Your task to perform on an android device: turn off smart reply in the gmail app Image 0: 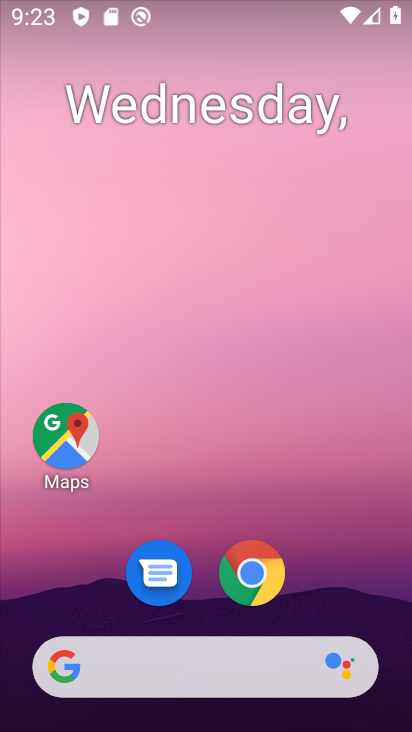
Step 0: drag from (298, 511) to (291, 304)
Your task to perform on an android device: turn off smart reply in the gmail app Image 1: 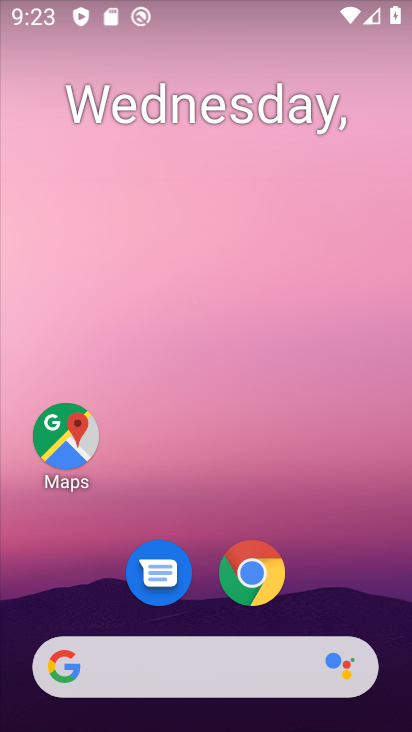
Step 1: drag from (310, 529) to (311, 244)
Your task to perform on an android device: turn off smart reply in the gmail app Image 2: 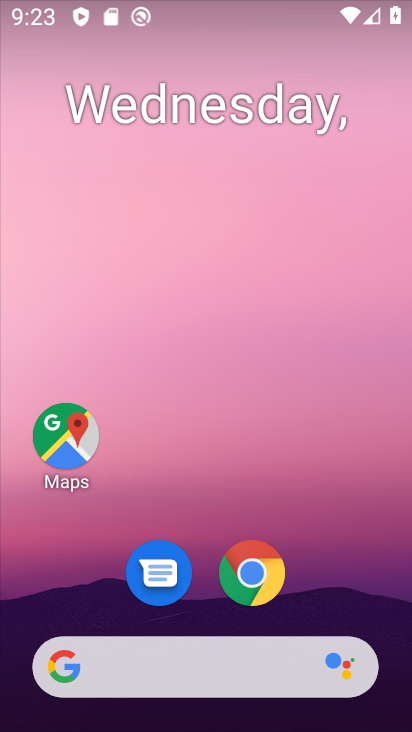
Step 2: drag from (305, 568) to (304, 195)
Your task to perform on an android device: turn off smart reply in the gmail app Image 3: 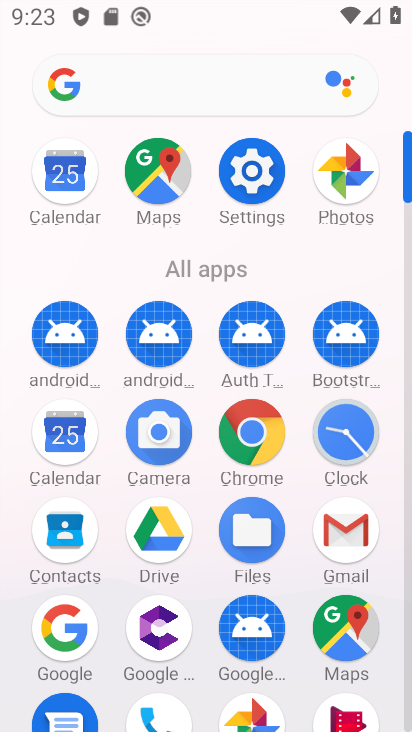
Step 3: click (354, 531)
Your task to perform on an android device: turn off smart reply in the gmail app Image 4: 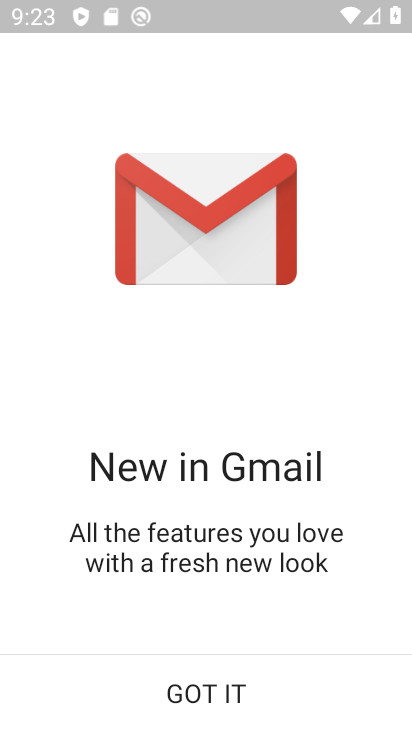
Step 4: click (237, 689)
Your task to perform on an android device: turn off smart reply in the gmail app Image 5: 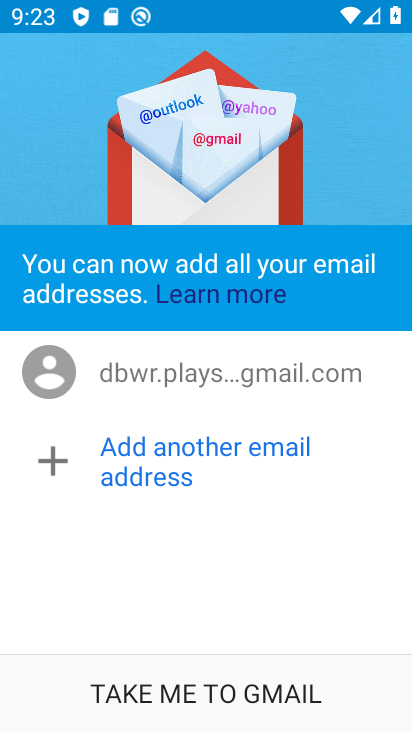
Step 5: click (242, 676)
Your task to perform on an android device: turn off smart reply in the gmail app Image 6: 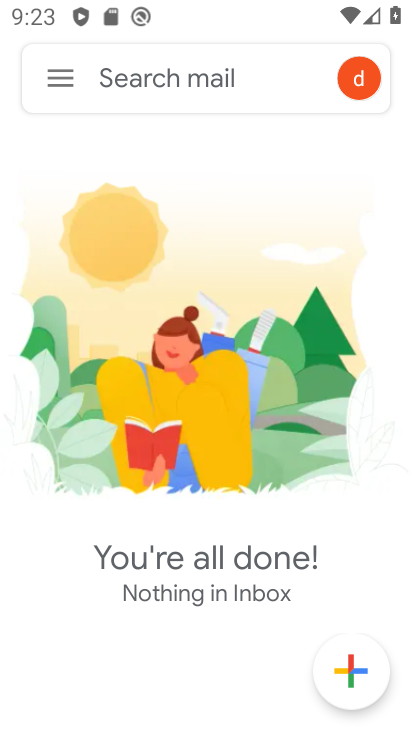
Step 6: click (57, 76)
Your task to perform on an android device: turn off smart reply in the gmail app Image 7: 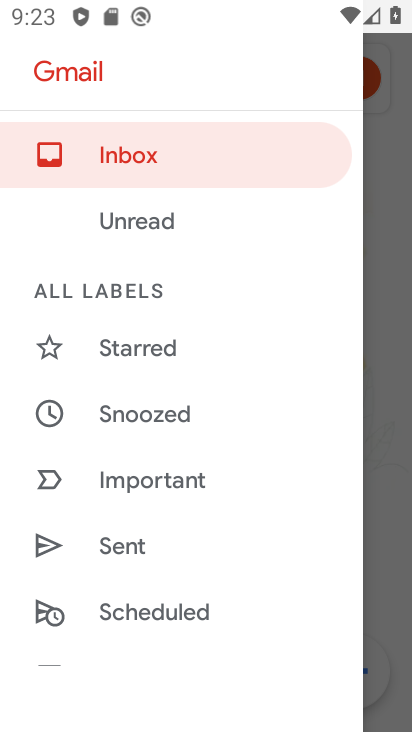
Step 7: drag from (225, 599) to (223, 225)
Your task to perform on an android device: turn off smart reply in the gmail app Image 8: 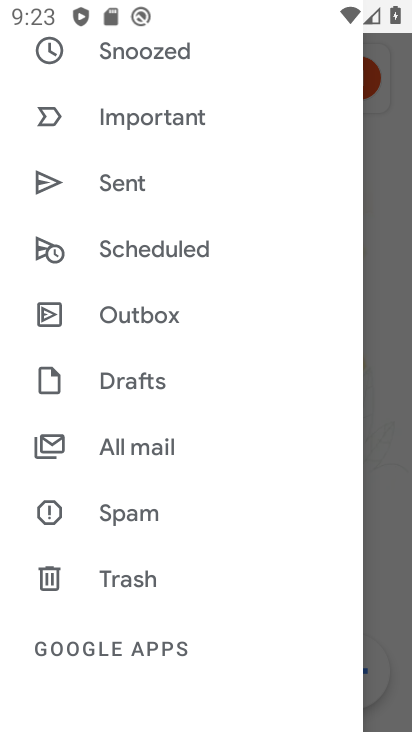
Step 8: drag from (199, 588) to (201, 195)
Your task to perform on an android device: turn off smart reply in the gmail app Image 9: 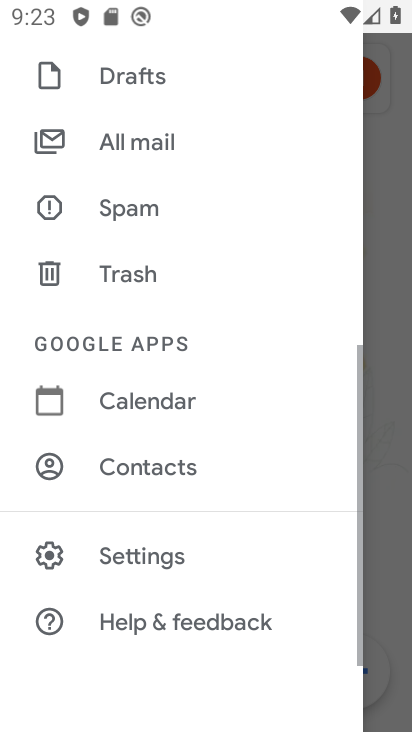
Step 9: click (140, 564)
Your task to perform on an android device: turn off smart reply in the gmail app Image 10: 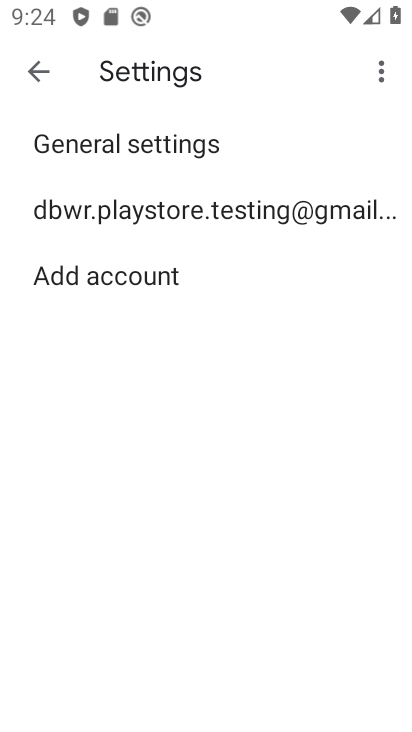
Step 10: click (192, 218)
Your task to perform on an android device: turn off smart reply in the gmail app Image 11: 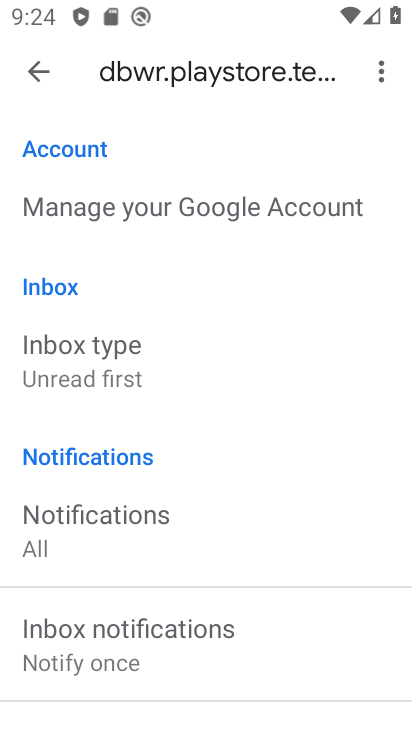
Step 11: drag from (191, 582) to (167, 291)
Your task to perform on an android device: turn off smart reply in the gmail app Image 12: 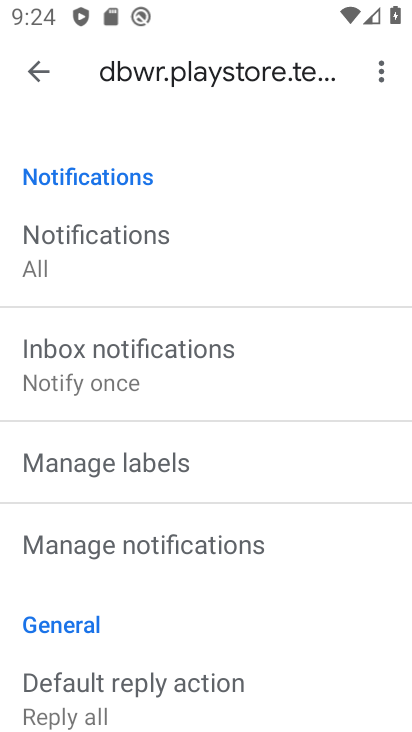
Step 12: drag from (208, 669) to (219, 263)
Your task to perform on an android device: turn off smart reply in the gmail app Image 13: 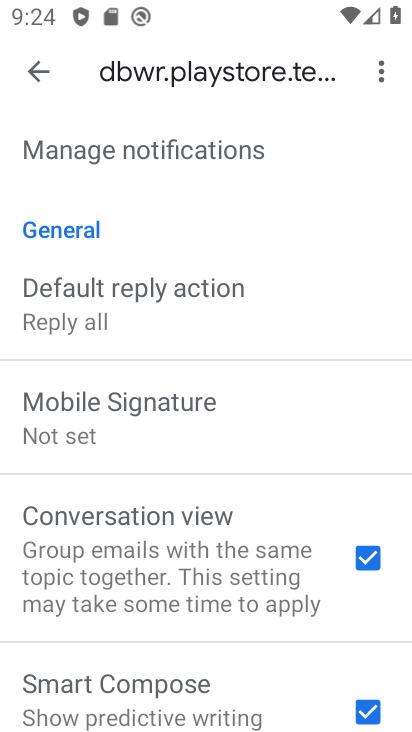
Step 13: drag from (179, 608) to (176, 315)
Your task to perform on an android device: turn off smart reply in the gmail app Image 14: 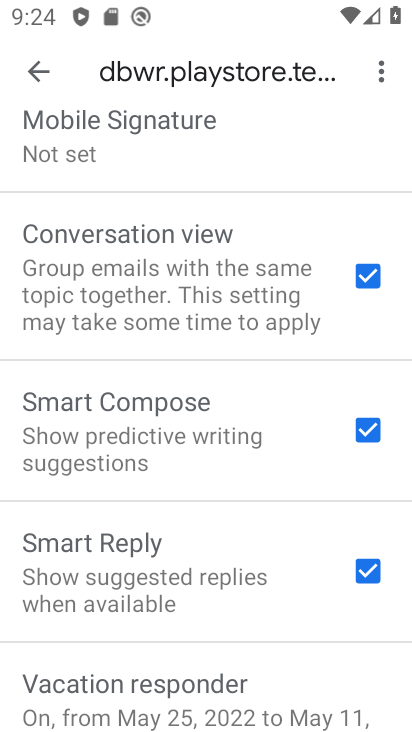
Step 14: click (368, 565)
Your task to perform on an android device: turn off smart reply in the gmail app Image 15: 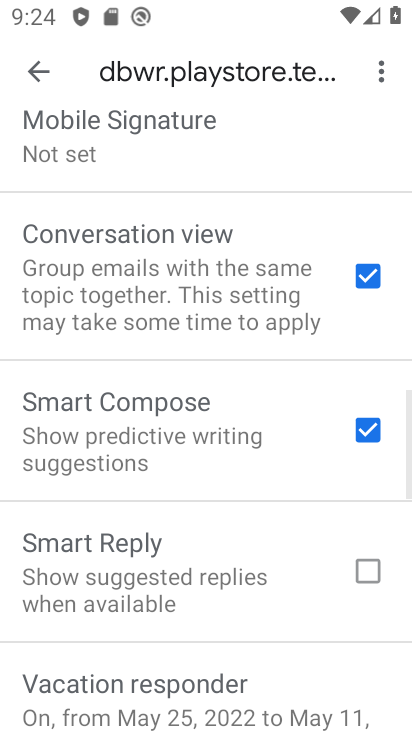
Step 15: task complete